Your task to perform on an android device: change the clock display to digital Image 0: 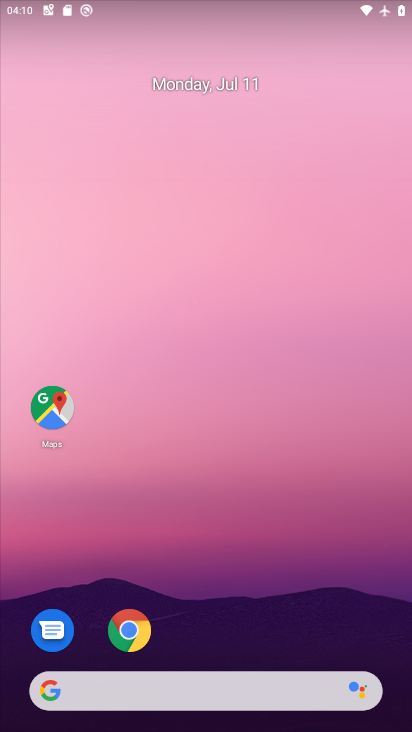
Step 0: drag from (293, 624) to (262, 154)
Your task to perform on an android device: change the clock display to digital Image 1: 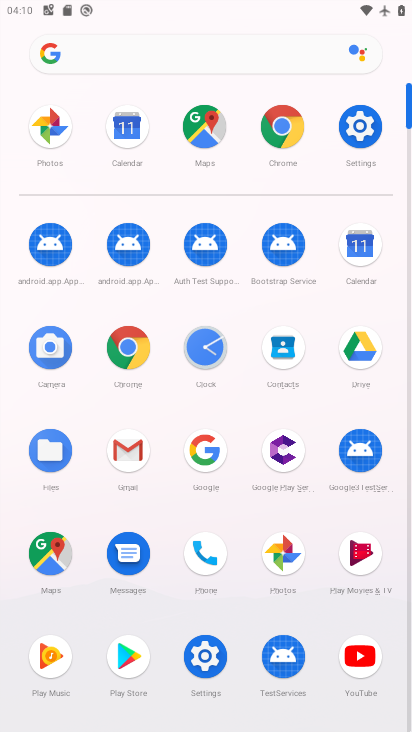
Step 1: click (352, 133)
Your task to perform on an android device: change the clock display to digital Image 2: 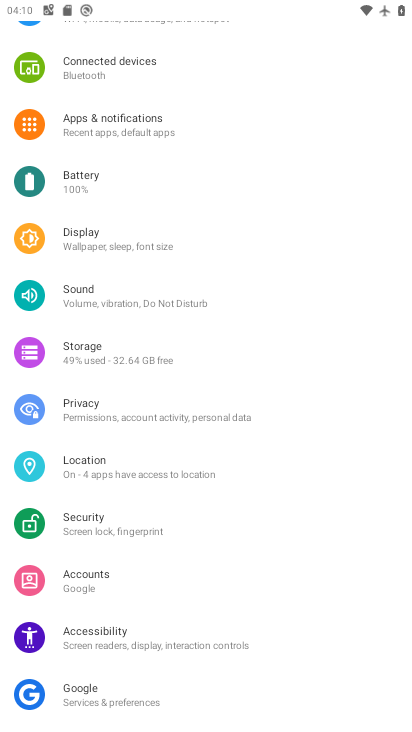
Step 2: press home button
Your task to perform on an android device: change the clock display to digital Image 3: 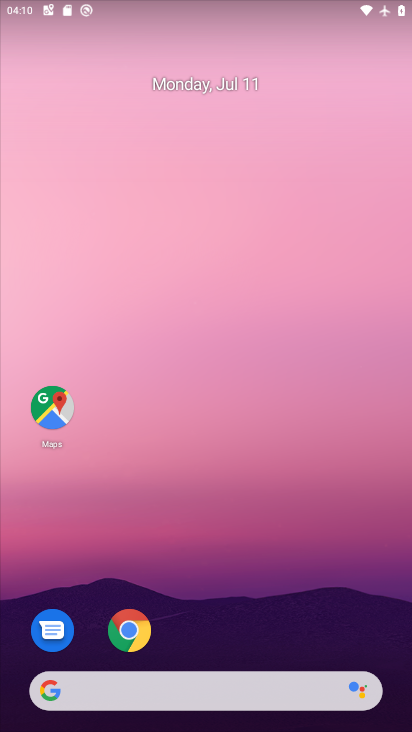
Step 3: drag from (275, 621) to (226, 7)
Your task to perform on an android device: change the clock display to digital Image 4: 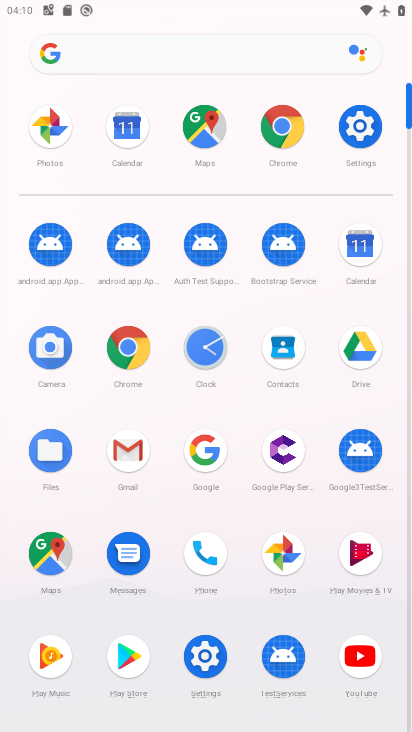
Step 4: click (357, 198)
Your task to perform on an android device: change the clock display to digital Image 5: 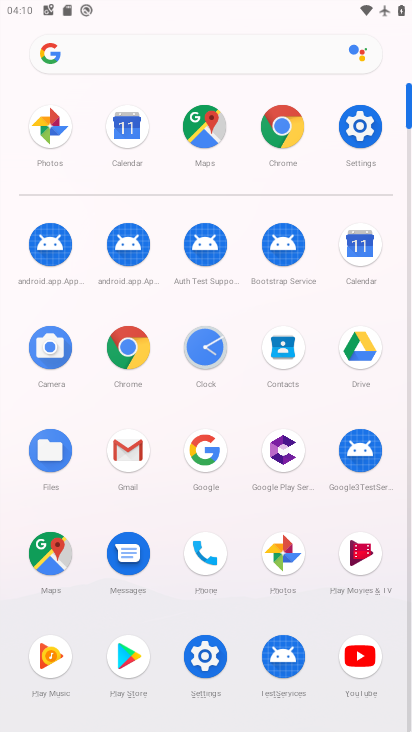
Step 5: click (351, 161)
Your task to perform on an android device: change the clock display to digital Image 6: 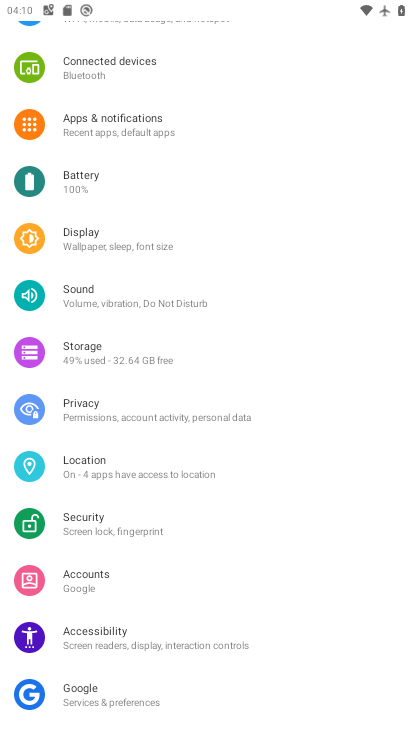
Step 6: drag from (141, 173) to (120, 420)
Your task to perform on an android device: change the clock display to digital Image 7: 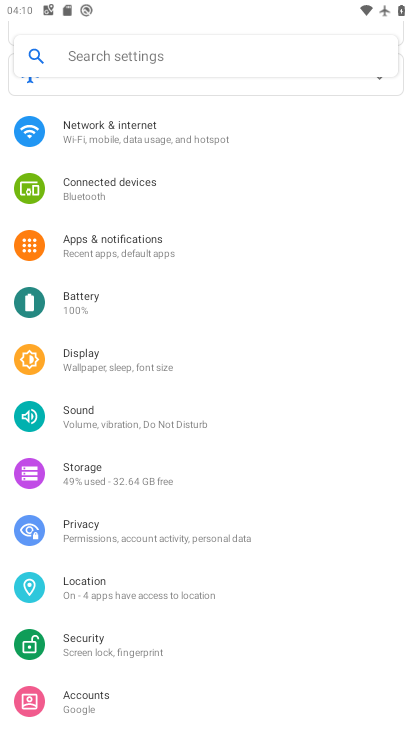
Step 7: press home button
Your task to perform on an android device: change the clock display to digital Image 8: 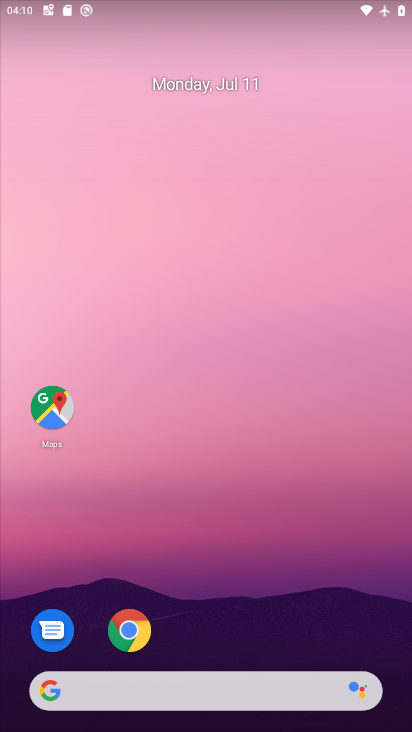
Step 8: drag from (259, 587) to (225, 127)
Your task to perform on an android device: change the clock display to digital Image 9: 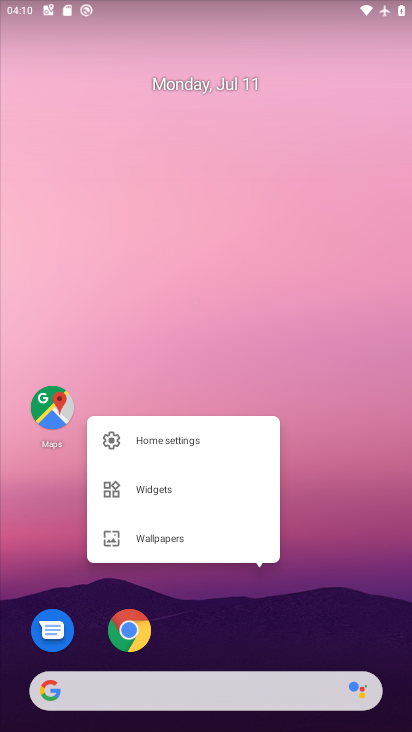
Step 9: click (233, 240)
Your task to perform on an android device: change the clock display to digital Image 10: 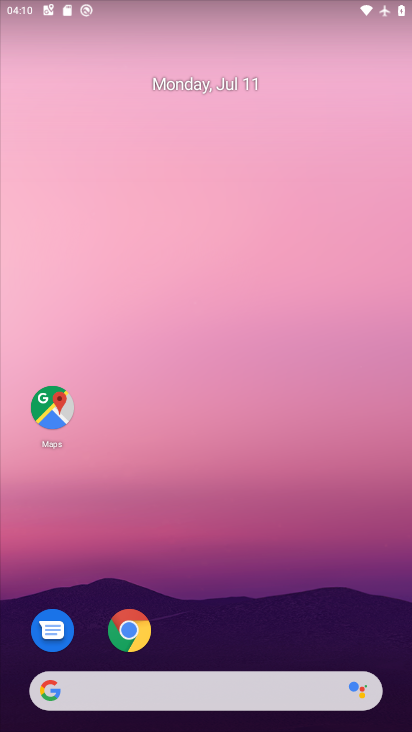
Step 10: drag from (220, 627) to (237, 142)
Your task to perform on an android device: change the clock display to digital Image 11: 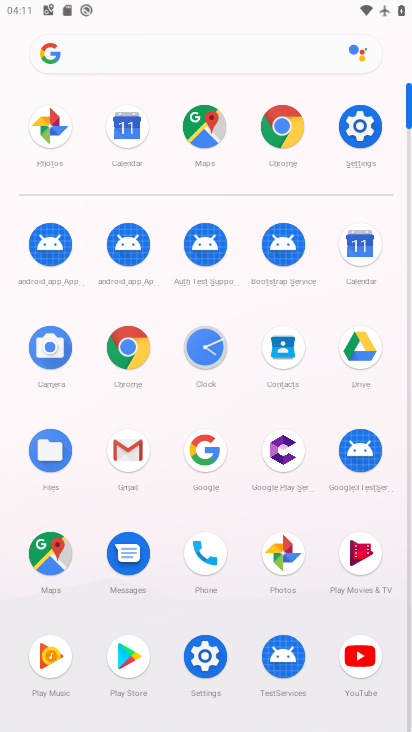
Step 11: click (215, 355)
Your task to perform on an android device: change the clock display to digital Image 12: 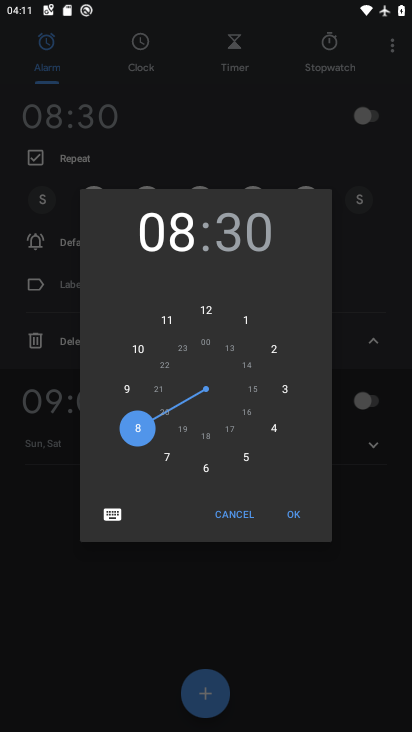
Step 12: click (138, 171)
Your task to perform on an android device: change the clock display to digital Image 13: 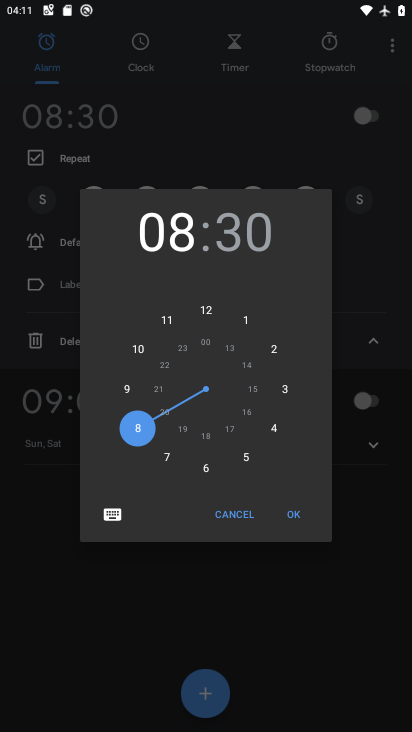
Step 13: click (300, 523)
Your task to perform on an android device: change the clock display to digital Image 14: 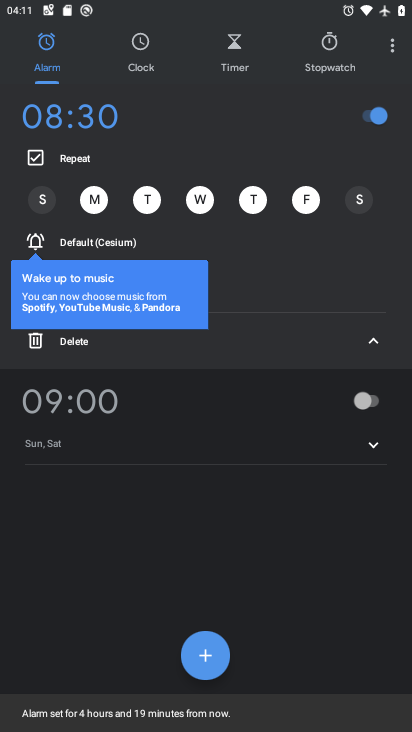
Step 14: click (381, 40)
Your task to perform on an android device: change the clock display to digital Image 15: 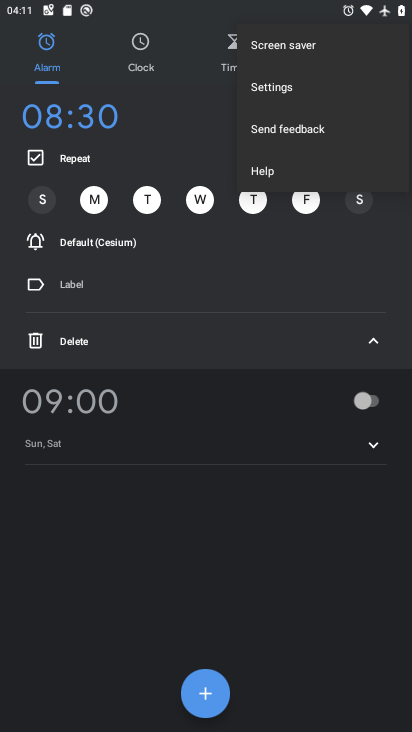
Step 15: click (265, 93)
Your task to perform on an android device: change the clock display to digital Image 16: 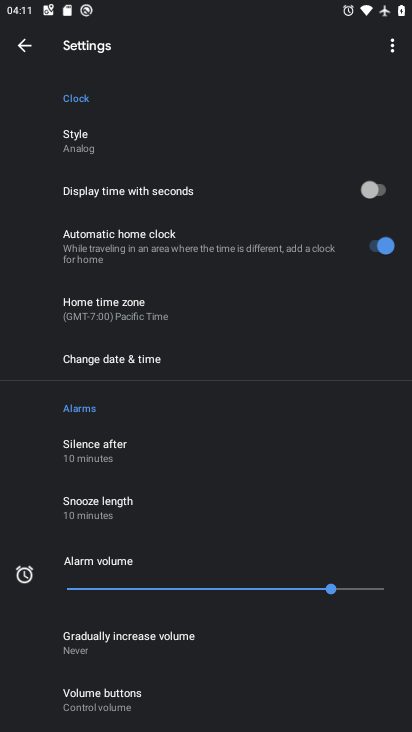
Step 16: click (194, 136)
Your task to perform on an android device: change the clock display to digital Image 17: 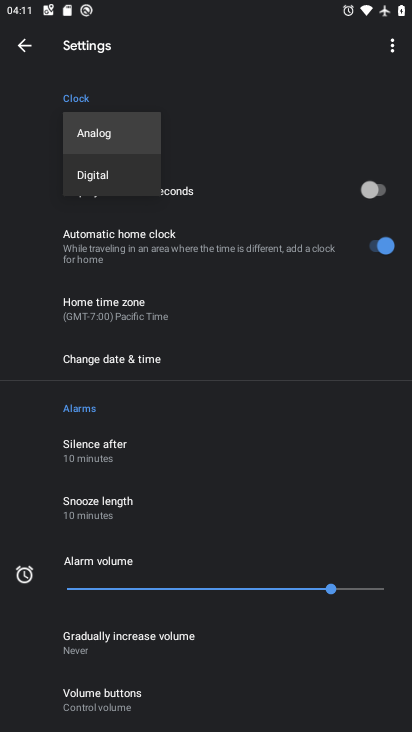
Step 17: click (84, 189)
Your task to perform on an android device: change the clock display to digital Image 18: 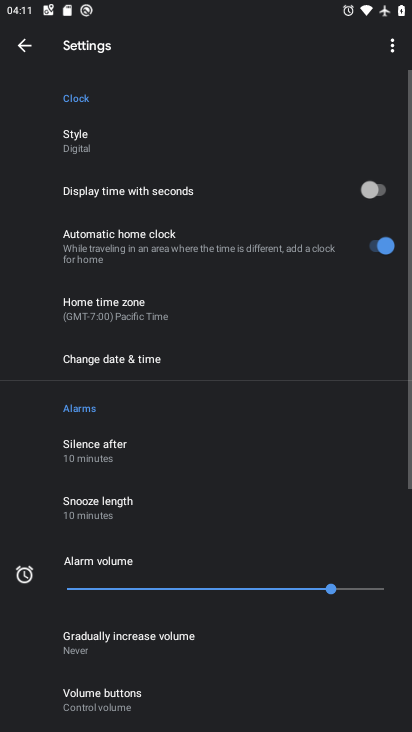
Step 18: task complete